Your task to perform on an android device: turn on location history Image 0: 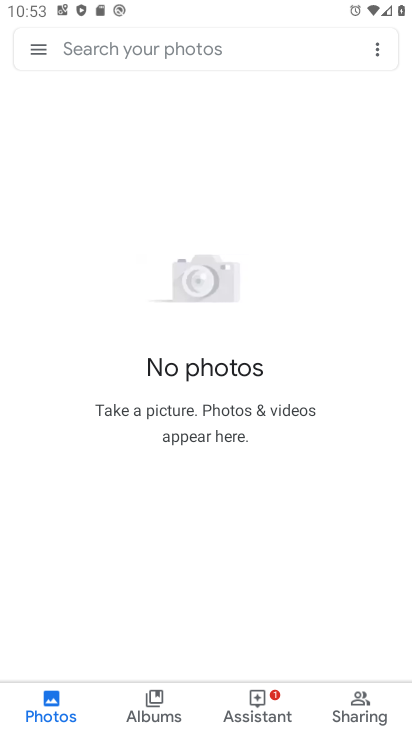
Step 0: press home button
Your task to perform on an android device: turn on location history Image 1: 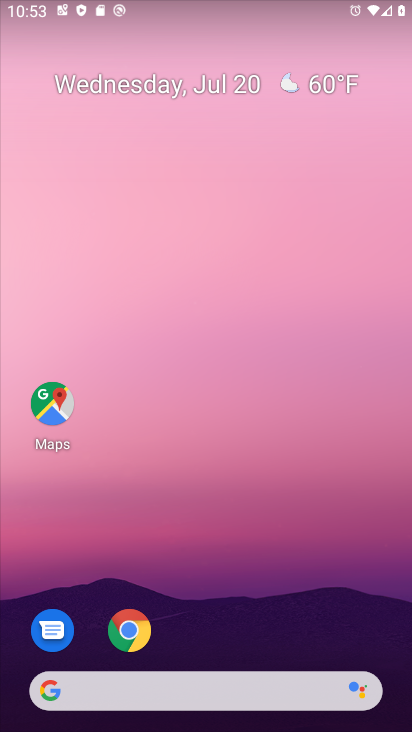
Step 1: drag from (218, 726) to (217, 214)
Your task to perform on an android device: turn on location history Image 2: 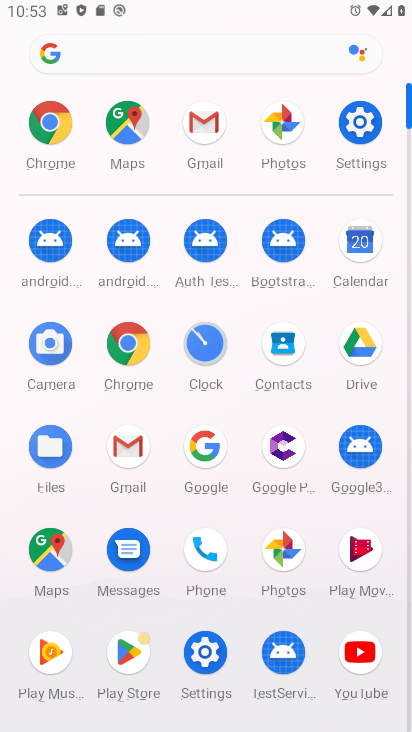
Step 2: click (356, 122)
Your task to perform on an android device: turn on location history Image 3: 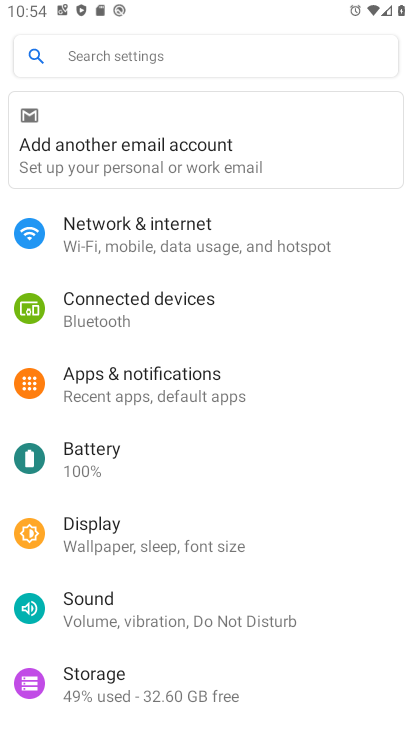
Step 3: drag from (92, 670) to (98, 372)
Your task to perform on an android device: turn on location history Image 4: 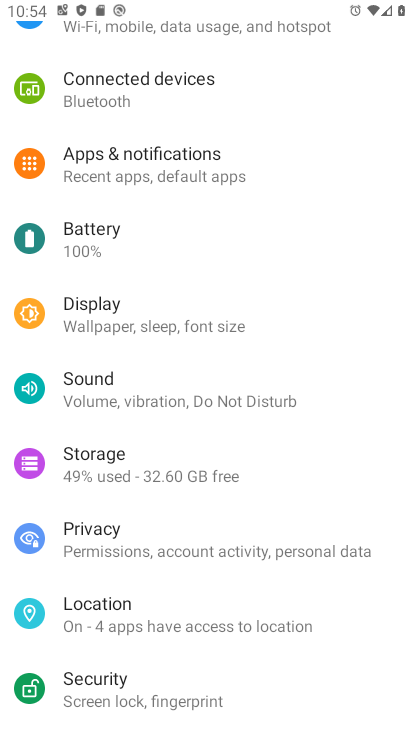
Step 4: click (112, 609)
Your task to perform on an android device: turn on location history Image 5: 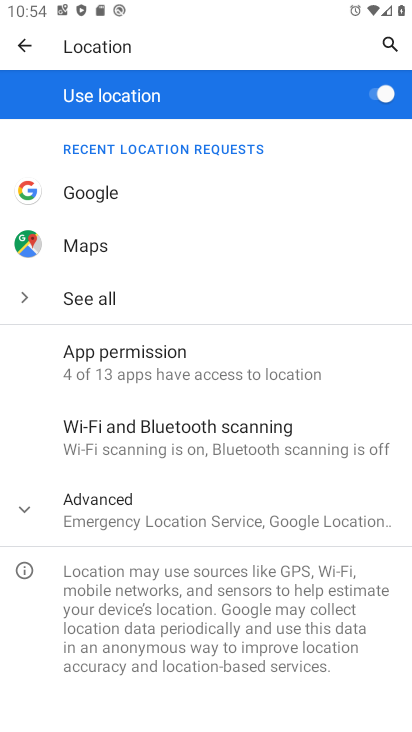
Step 5: click (144, 512)
Your task to perform on an android device: turn on location history Image 6: 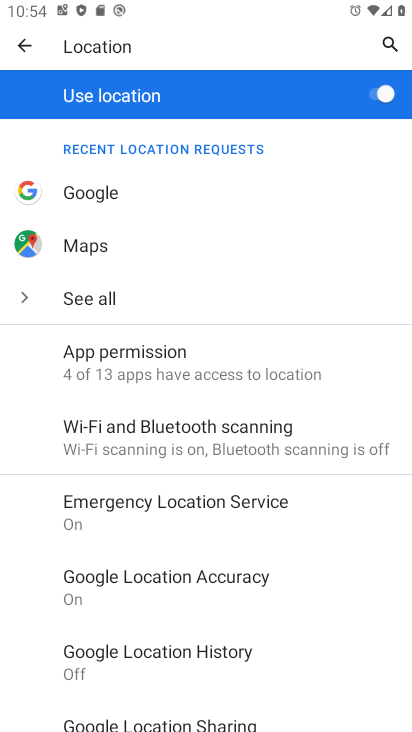
Step 6: click (205, 655)
Your task to perform on an android device: turn on location history Image 7: 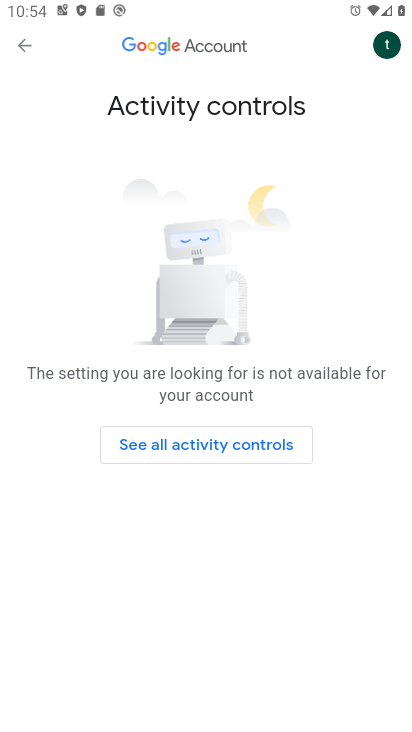
Step 7: click (241, 451)
Your task to perform on an android device: turn on location history Image 8: 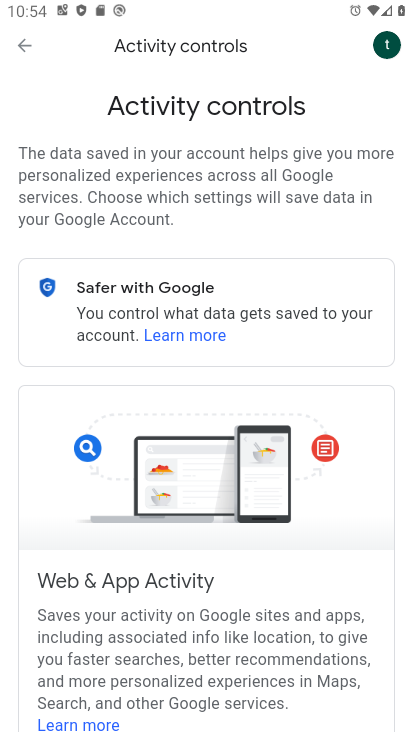
Step 8: task complete